Your task to perform on an android device: Go to internet settings Image 0: 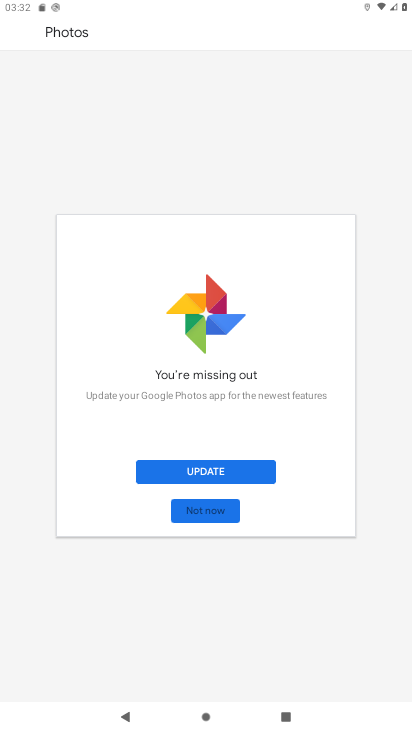
Step 0: press home button
Your task to perform on an android device: Go to internet settings Image 1: 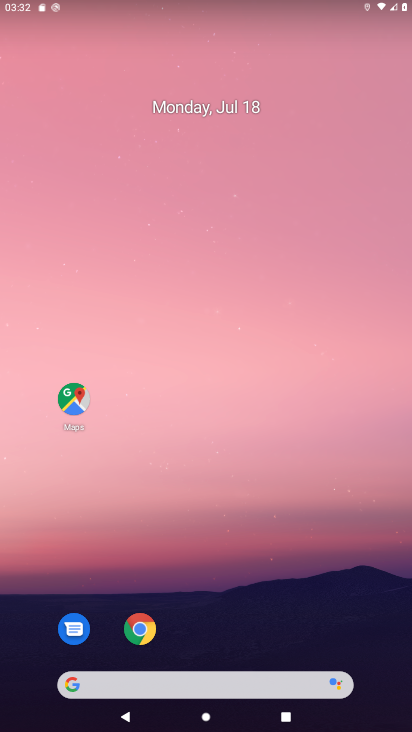
Step 1: drag from (340, 576) to (346, 100)
Your task to perform on an android device: Go to internet settings Image 2: 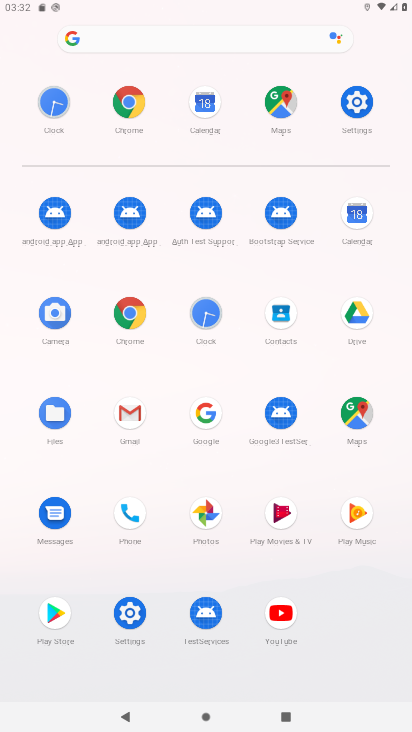
Step 2: click (364, 107)
Your task to perform on an android device: Go to internet settings Image 3: 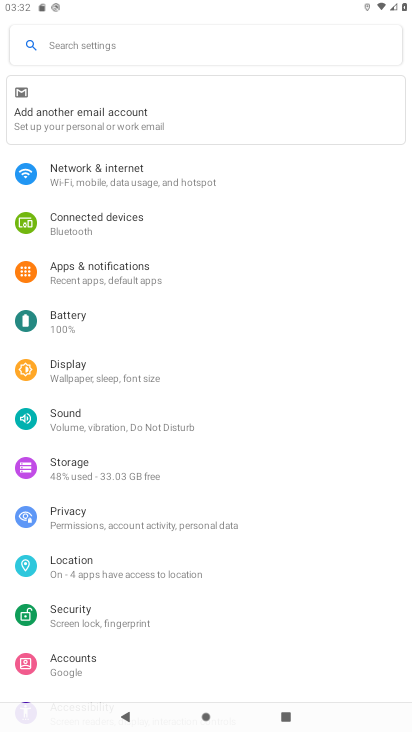
Step 3: drag from (294, 438) to (298, 326)
Your task to perform on an android device: Go to internet settings Image 4: 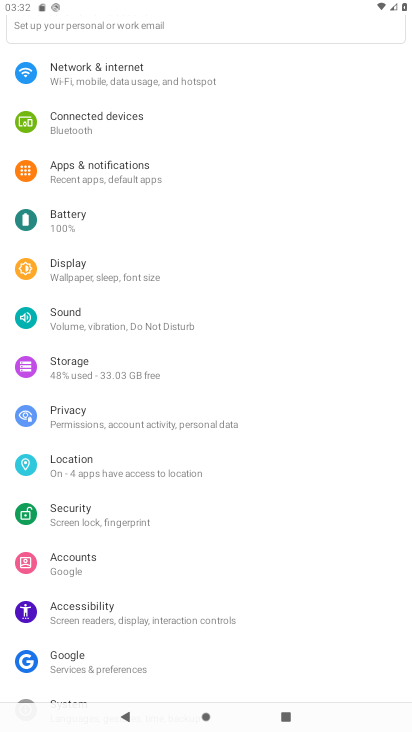
Step 4: drag from (308, 492) to (328, 388)
Your task to perform on an android device: Go to internet settings Image 5: 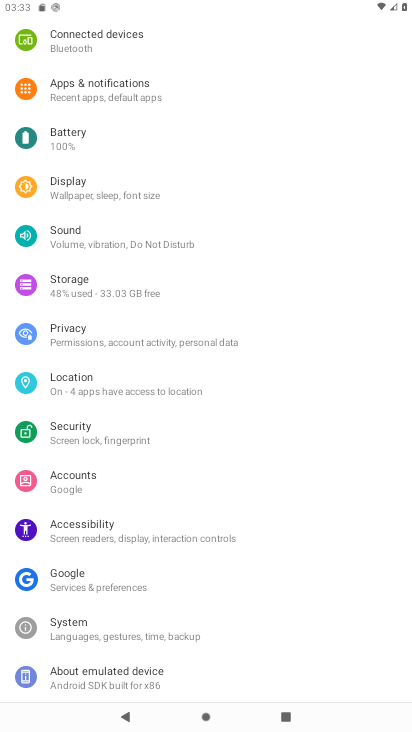
Step 5: drag from (306, 498) to (321, 404)
Your task to perform on an android device: Go to internet settings Image 6: 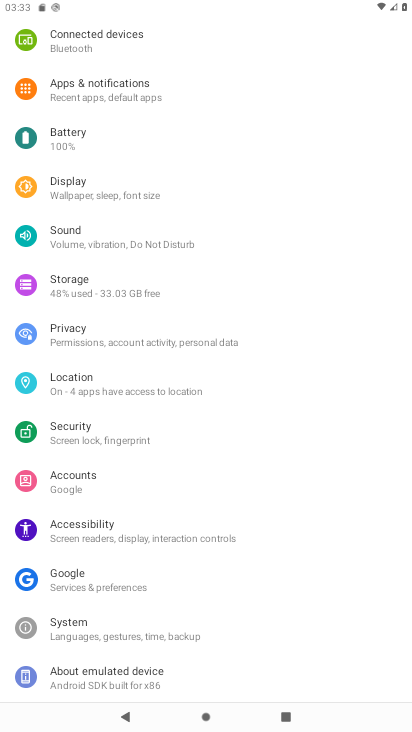
Step 6: drag from (318, 299) to (319, 395)
Your task to perform on an android device: Go to internet settings Image 7: 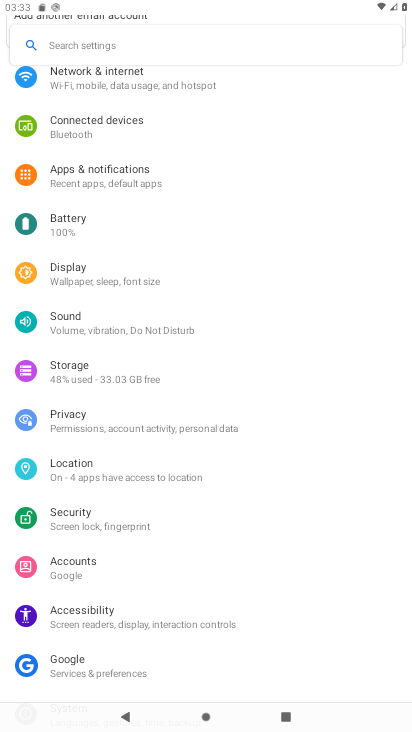
Step 7: drag from (322, 242) to (326, 396)
Your task to perform on an android device: Go to internet settings Image 8: 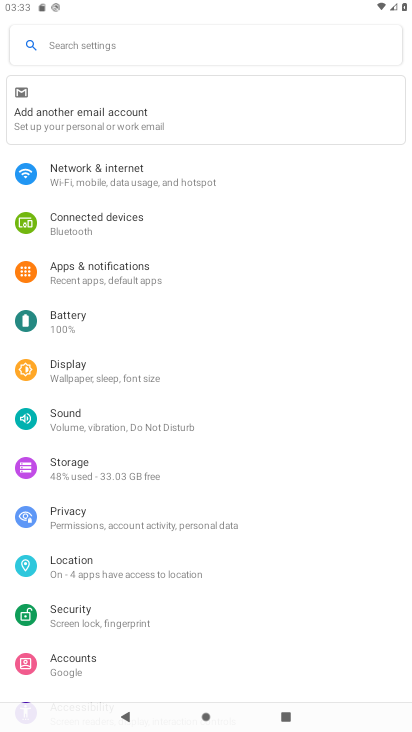
Step 8: click (209, 180)
Your task to perform on an android device: Go to internet settings Image 9: 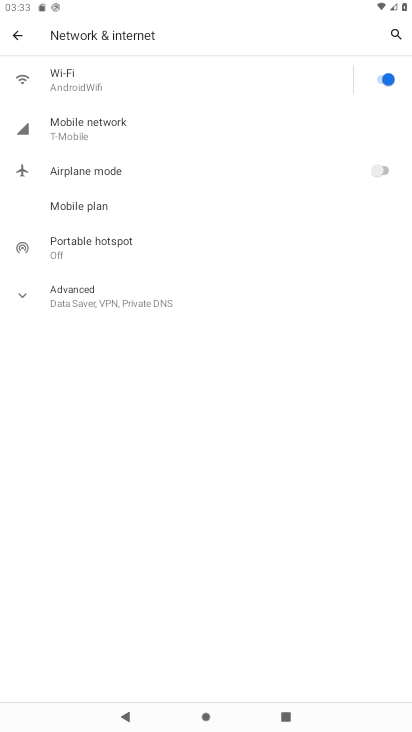
Step 9: task complete